Your task to perform on an android device: Open CNN.com Image 0: 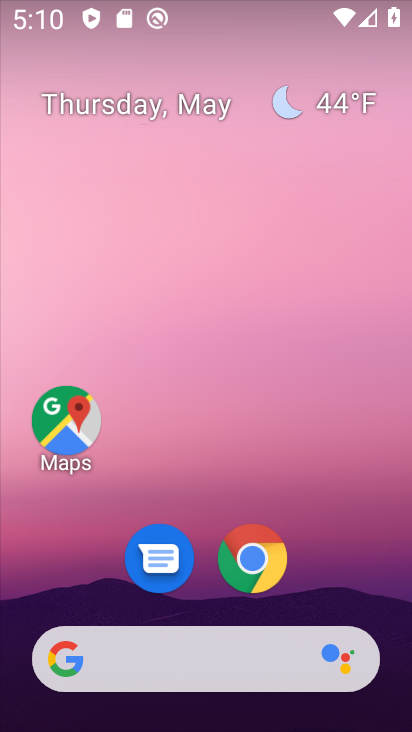
Step 0: drag from (318, 492) to (236, 2)
Your task to perform on an android device: Open CNN.com Image 1: 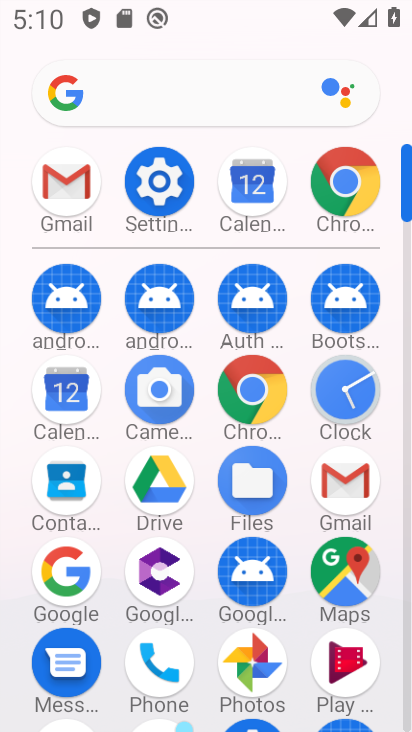
Step 1: click (348, 180)
Your task to perform on an android device: Open CNN.com Image 2: 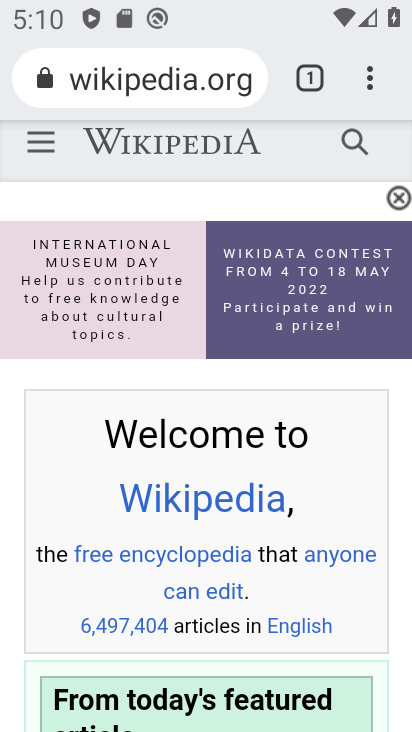
Step 2: click (186, 80)
Your task to perform on an android device: Open CNN.com Image 3: 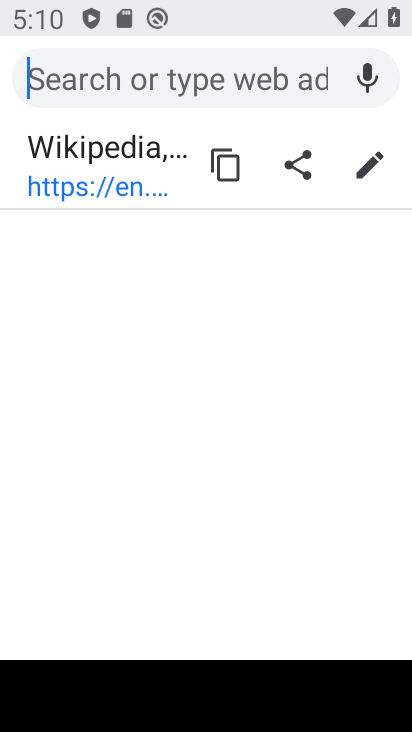
Step 3: type "CNN.com"
Your task to perform on an android device: Open CNN.com Image 4: 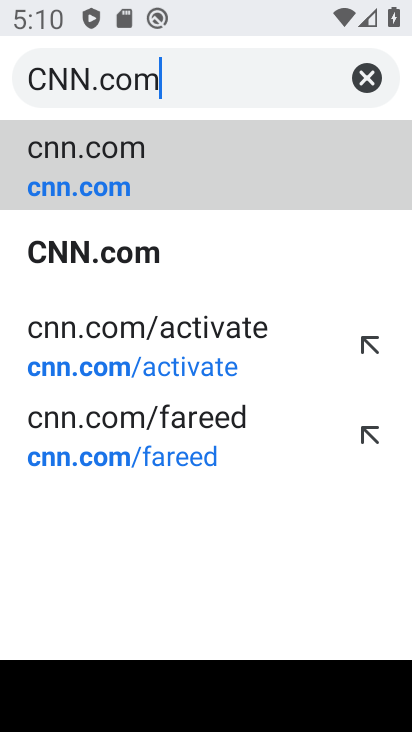
Step 4: click (135, 159)
Your task to perform on an android device: Open CNN.com Image 5: 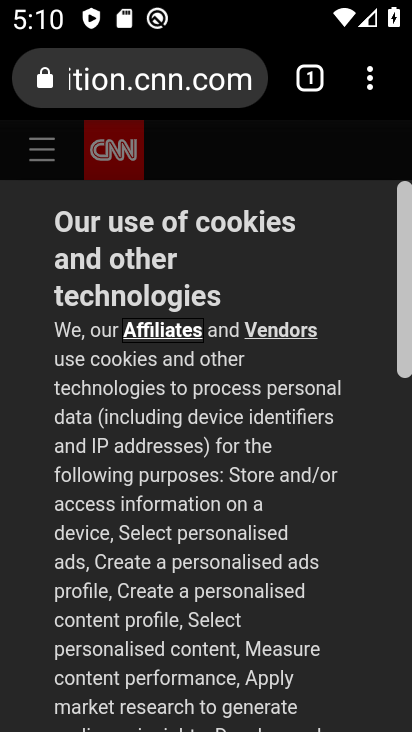
Step 5: drag from (277, 617) to (319, 263)
Your task to perform on an android device: Open CNN.com Image 6: 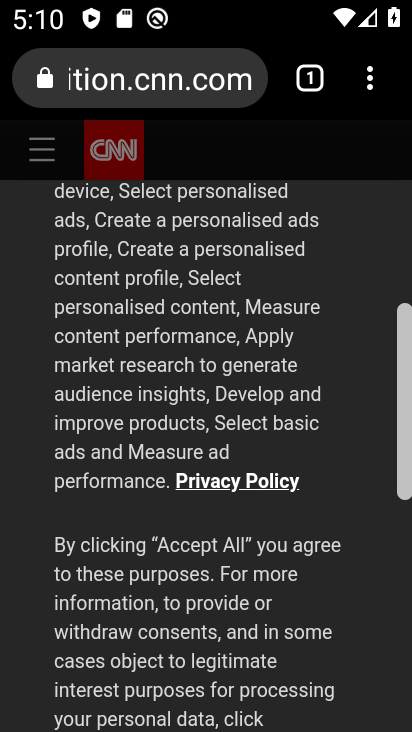
Step 6: drag from (285, 587) to (303, 228)
Your task to perform on an android device: Open CNN.com Image 7: 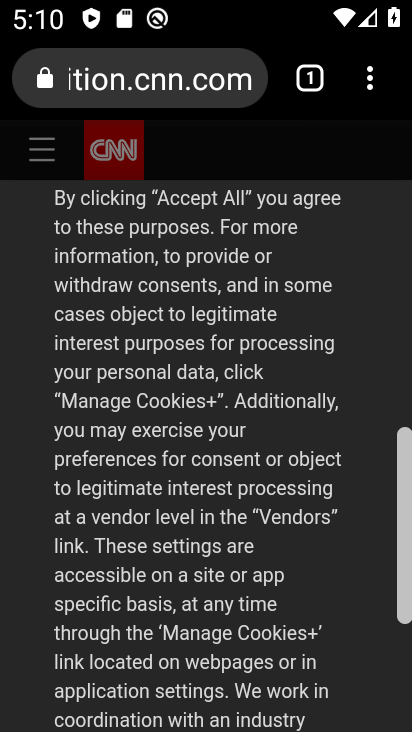
Step 7: drag from (303, 606) to (318, 234)
Your task to perform on an android device: Open CNN.com Image 8: 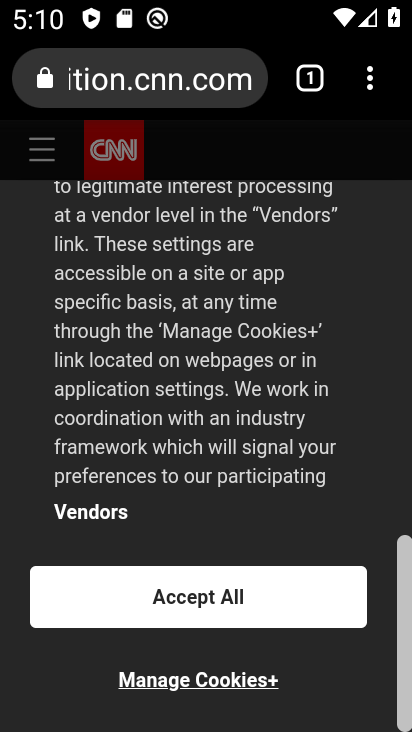
Step 8: click (236, 610)
Your task to perform on an android device: Open CNN.com Image 9: 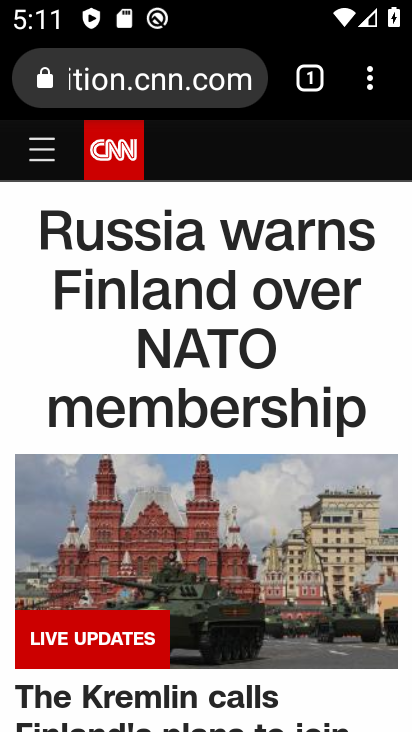
Step 9: task complete